Your task to perform on an android device: Is it going to rain this weekend? Image 0: 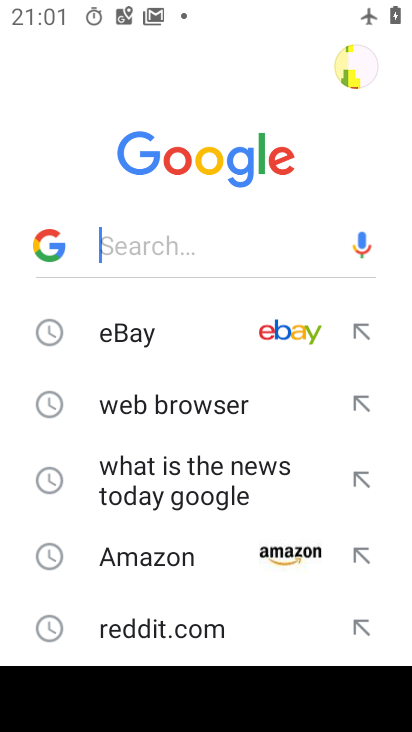
Step 0: click (159, 236)
Your task to perform on an android device: Is it going to rain this weekend? Image 1: 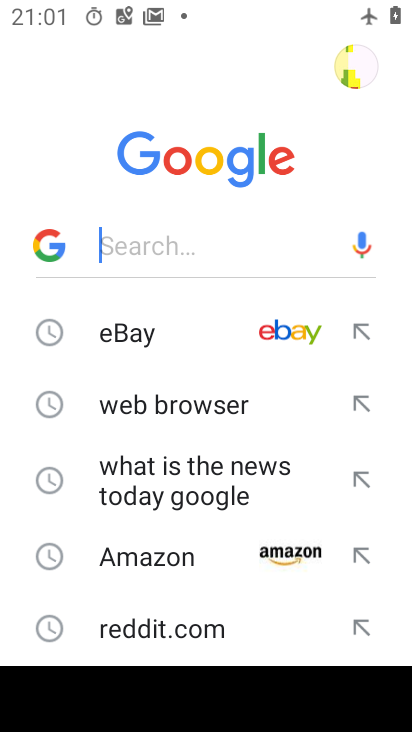
Step 1: type "Is it going to rain this weekend?"
Your task to perform on an android device: Is it going to rain this weekend? Image 2: 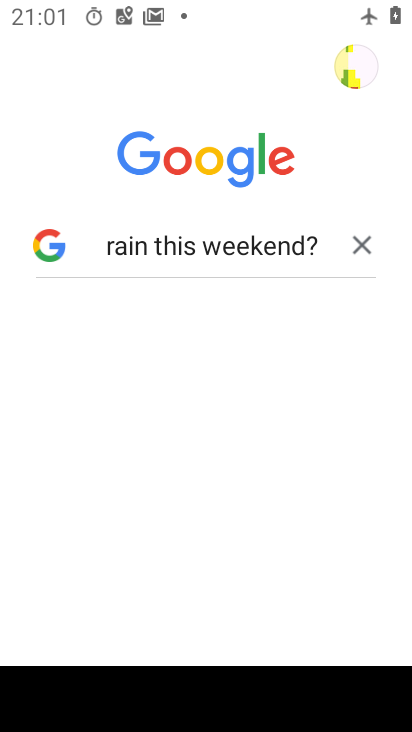
Step 2: click (210, 253)
Your task to perform on an android device: Is it going to rain this weekend? Image 3: 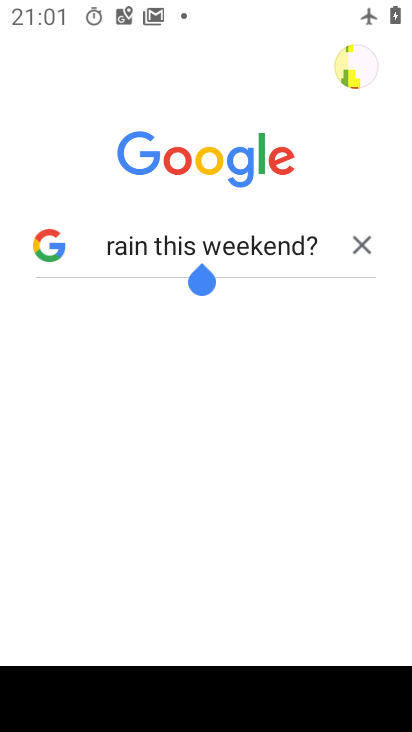
Step 3: press home button
Your task to perform on an android device: Is it going to rain this weekend? Image 4: 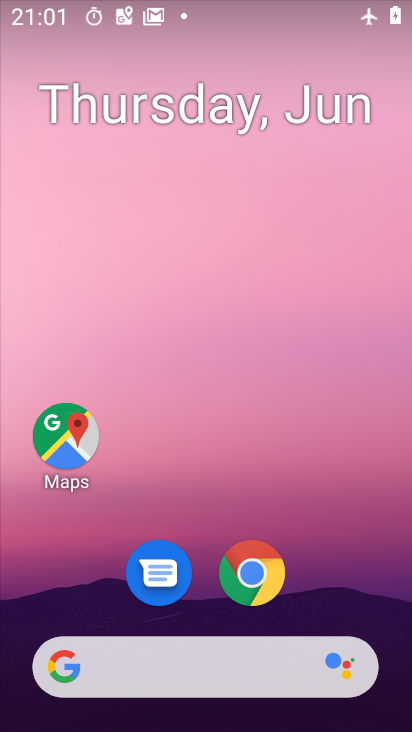
Step 4: click (237, 562)
Your task to perform on an android device: Is it going to rain this weekend? Image 5: 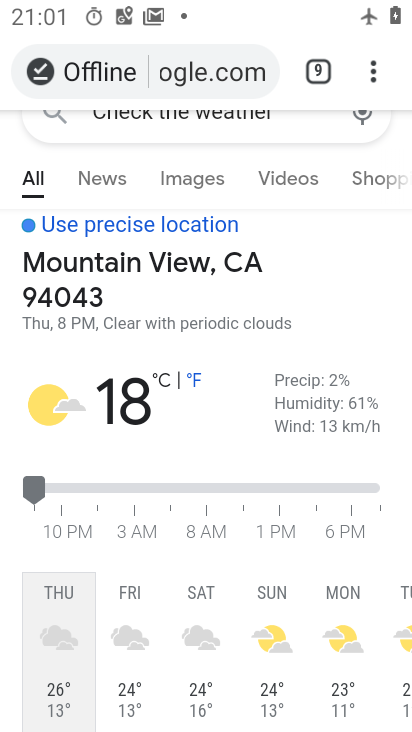
Step 5: click (359, 68)
Your task to perform on an android device: Is it going to rain this weekend? Image 6: 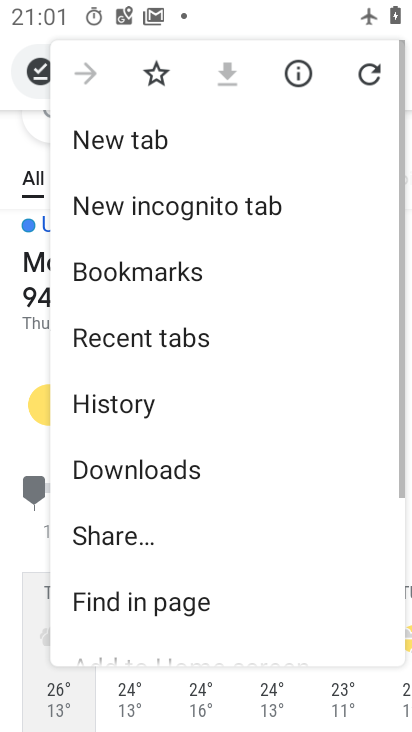
Step 6: click (162, 117)
Your task to perform on an android device: Is it going to rain this weekend? Image 7: 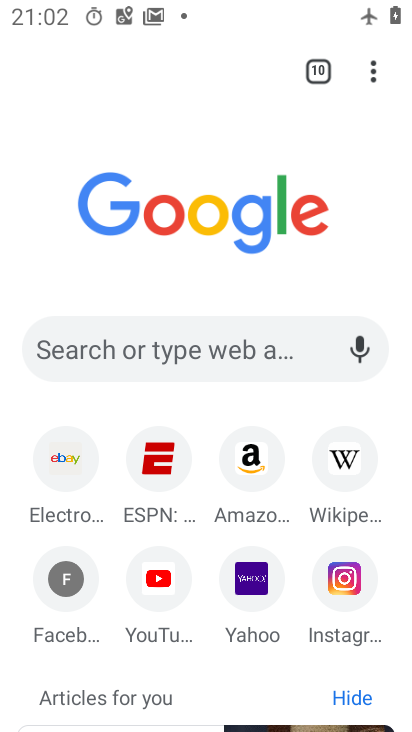
Step 7: click (186, 335)
Your task to perform on an android device: Is it going to rain this weekend? Image 8: 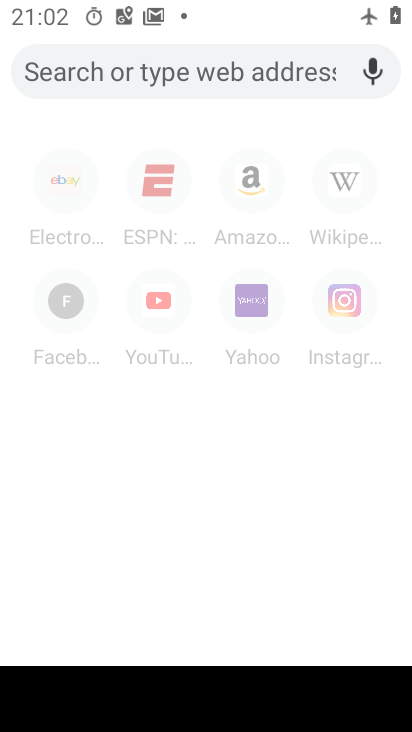
Step 8: type "Is it going to rain this weekend?"
Your task to perform on an android device: Is it going to rain this weekend? Image 9: 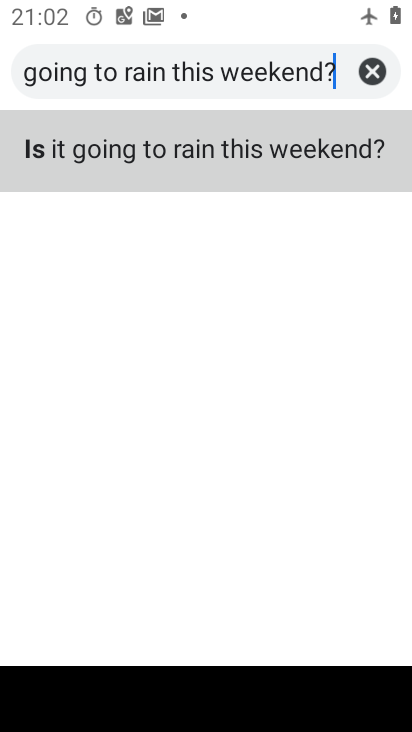
Step 9: click (188, 157)
Your task to perform on an android device: Is it going to rain this weekend? Image 10: 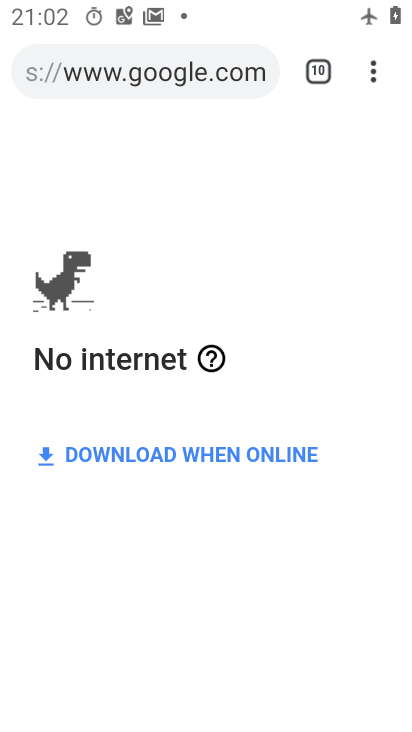
Step 10: task complete